Your task to perform on an android device: delete the emails in spam in the gmail app Image 0: 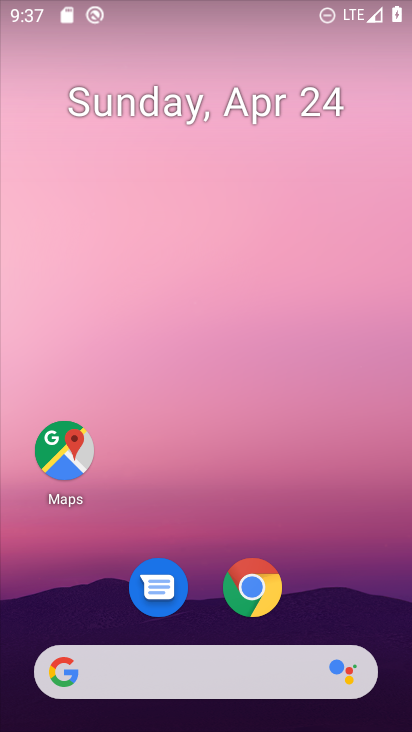
Step 0: drag from (329, 516) to (319, 85)
Your task to perform on an android device: delete the emails in spam in the gmail app Image 1: 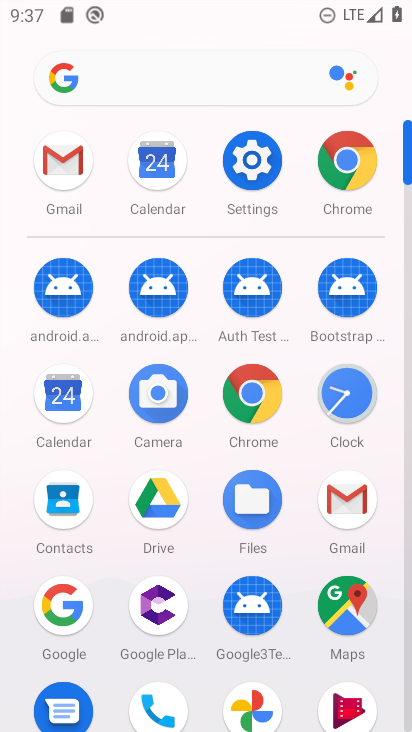
Step 1: click (346, 488)
Your task to perform on an android device: delete the emails in spam in the gmail app Image 2: 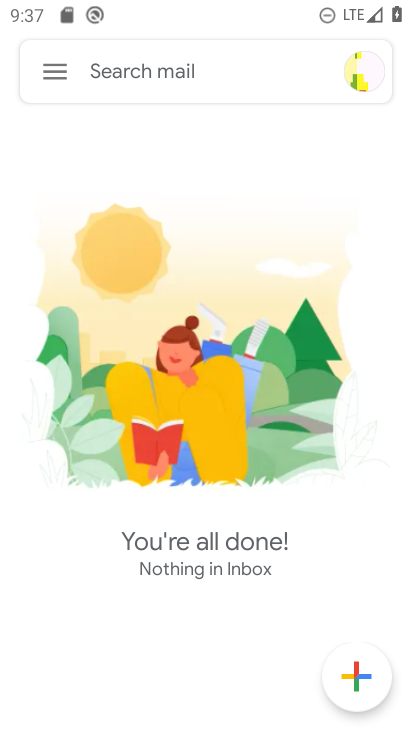
Step 2: click (62, 77)
Your task to perform on an android device: delete the emails in spam in the gmail app Image 3: 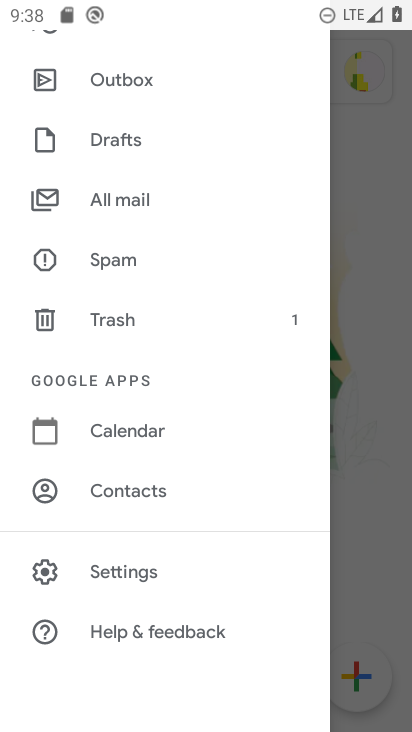
Step 3: click (139, 260)
Your task to perform on an android device: delete the emails in spam in the gmail app Image 4: 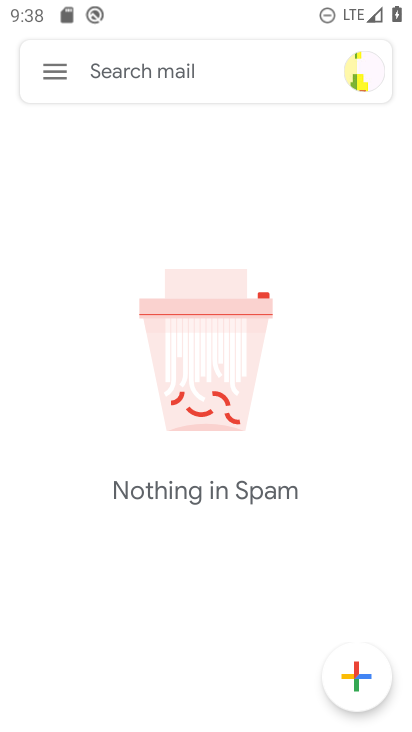
Step 4: task complete